Your task to perform on an android device: change the clock display to digital Image 0: 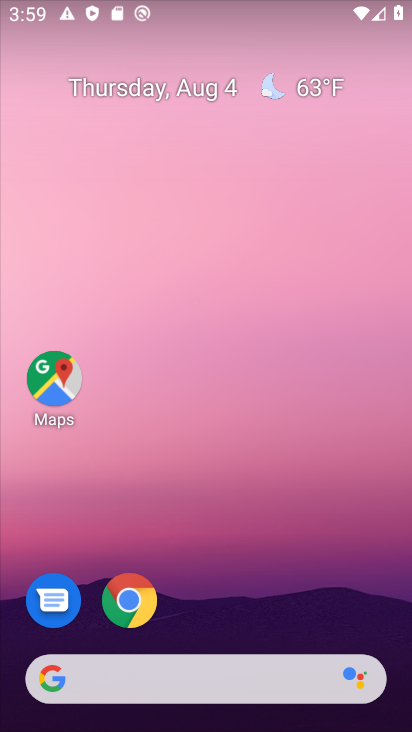
Step 0: drag from (300, 598) to (319, 122)
Your task to perform on an android device: change the clock display to digital Image 1: 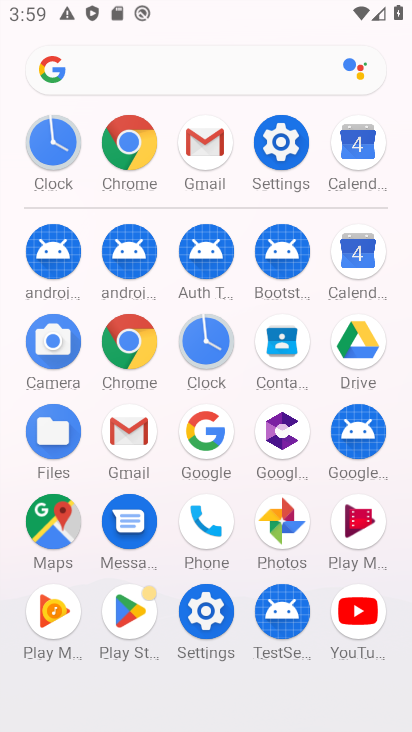
Step 1: click (208, 346)
Your task to perform on an android device: change the clock display to digital Image 2: 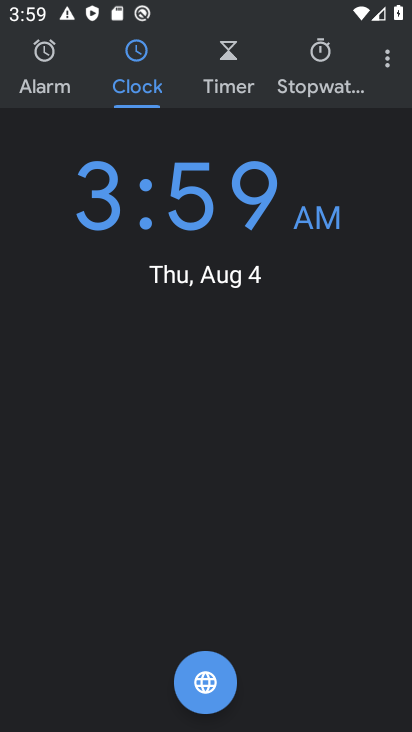
Step 2: click (390, 48)
Your task to perform on an android device: change the clock display to digital Image 3: 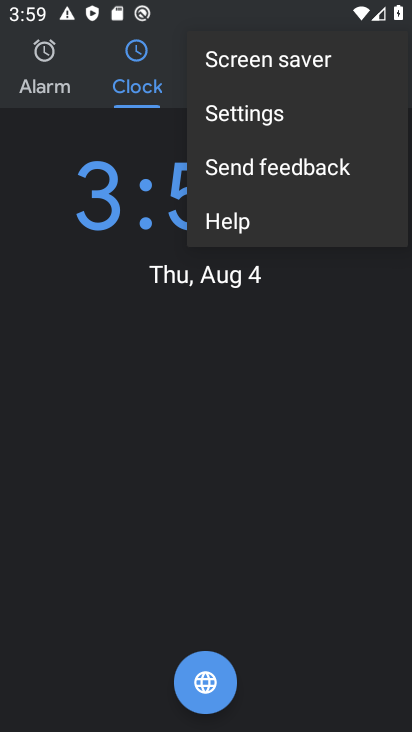
Step 3: click (288, 113)
Your task to perform on an android device: change the clock display to digital Image 4: 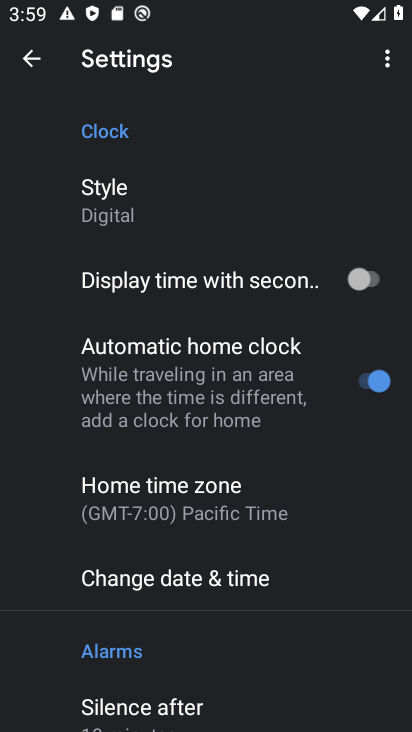
Step 4: task complete